Your task to perform on an android device: Turn off the flashlight Image 0: 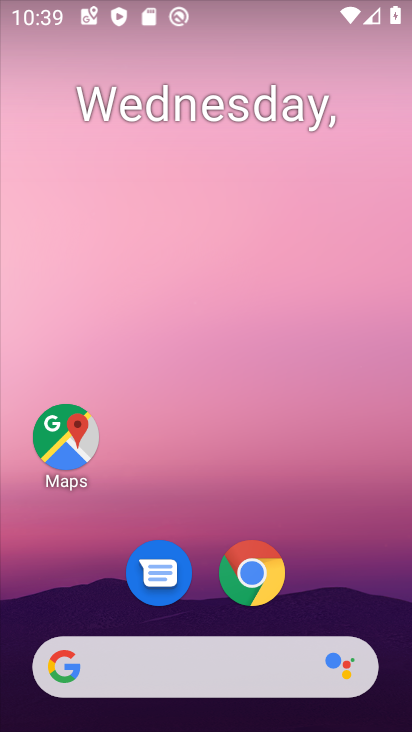
Step 0: drag from (216, 9) to (185, 442)
Your task to perform on an android device: Turn off the flashlight Image 1: 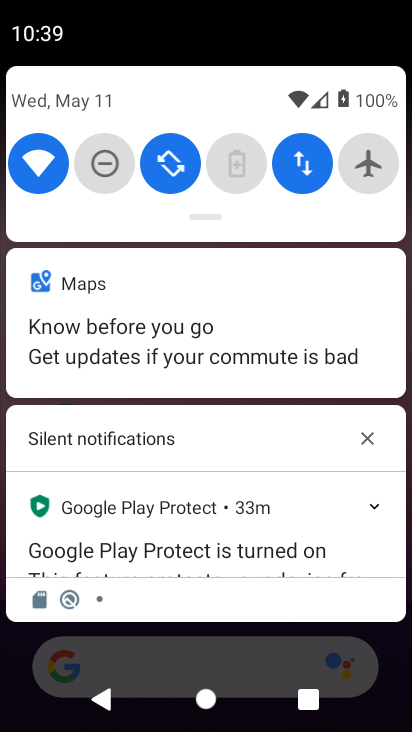
Step 1: drag from (225, 158) to (226, 485)
Your task to perform on an android device: Turn off the flashlight Image 2: 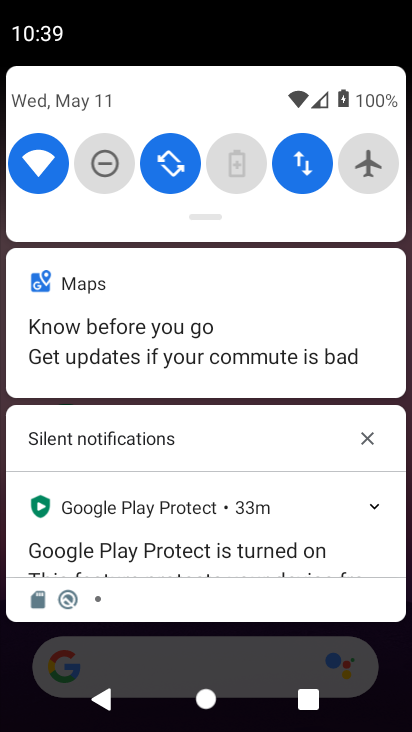
Step 2: drag from (253, 260) to (190, 578)
Your task to perform on an android device: Turn off the flashlight Image 3: 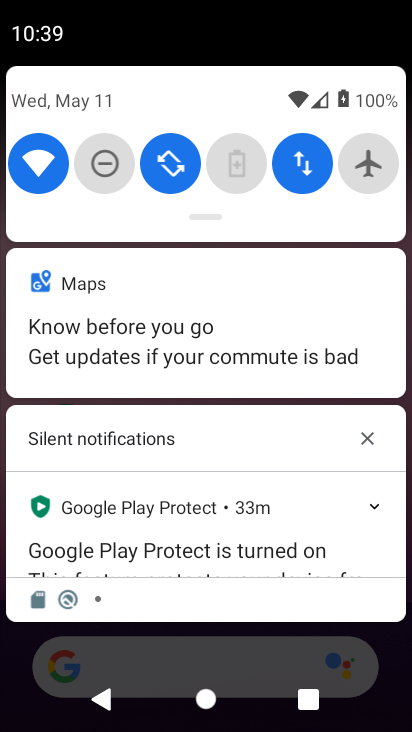
Step 3: drag from (232, 135) to (162, 633)
Your task to perform on an android device: Turn off the flashlight Image 4: 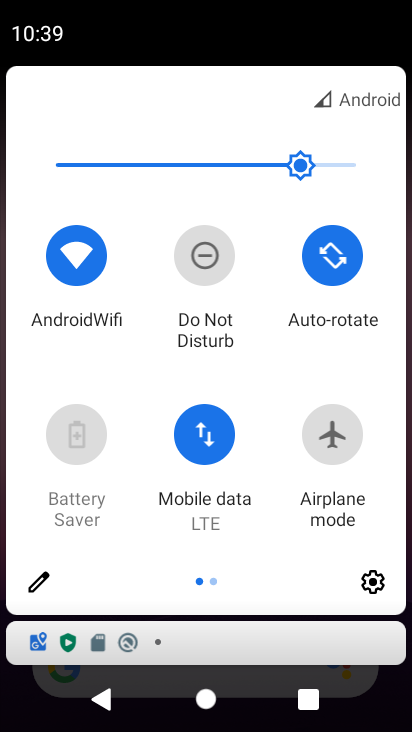
Step 4: drag from (342, 406) to (8, 494)
Your task to perform on an android device: Turn off the flashlight Image 5: 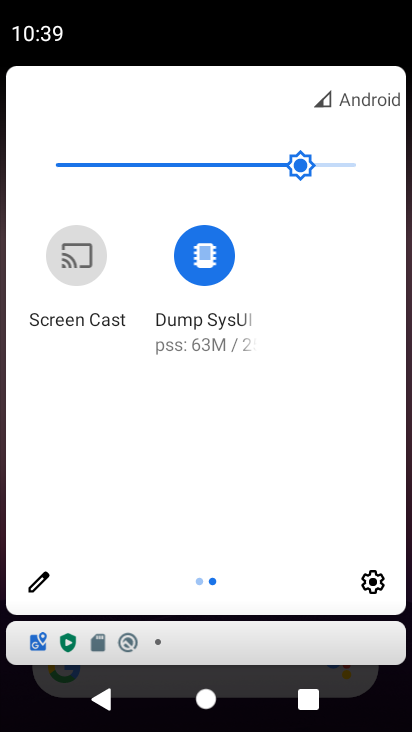
Step 5: click (39, 579)
Your task to perform on an android device: Turn off the flashlight Image 6: 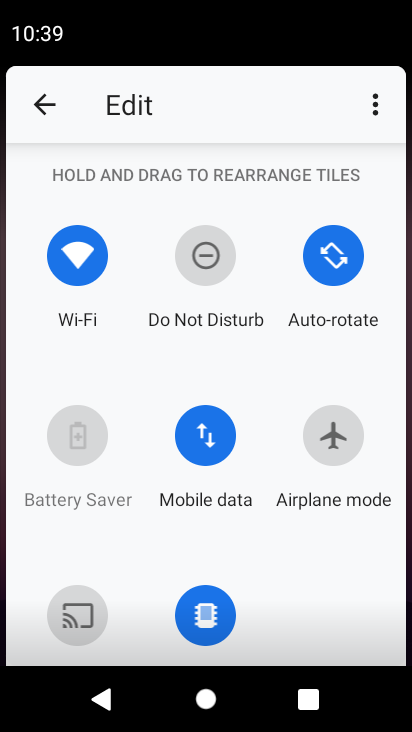
Step 6: task complete